Your task to perform on an android device: Open ESPN.com Image 0: 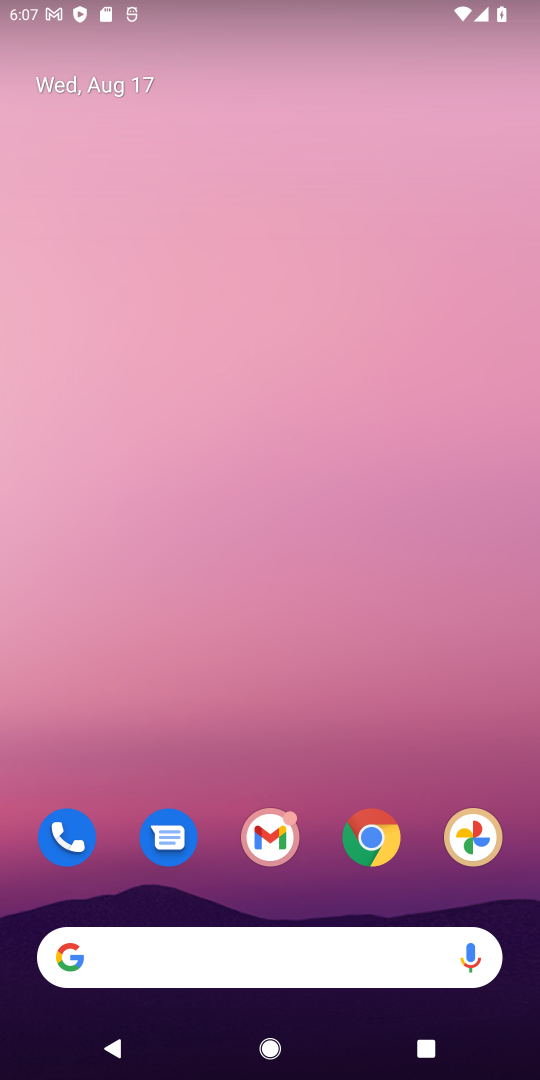
Step 0: click (379, 831)
Your task to perform on an android device: Open ESPN.com Image 1: 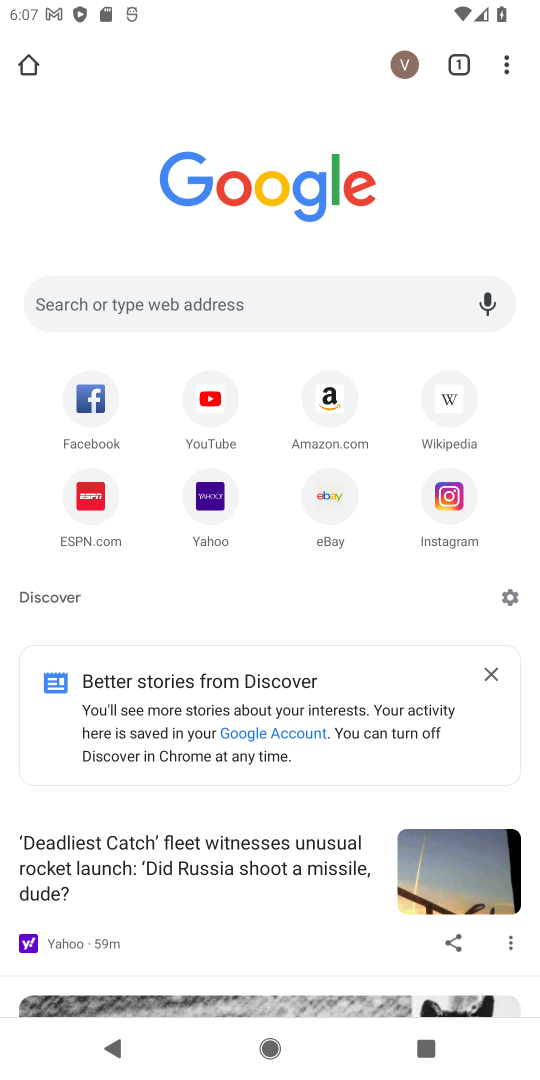
Step 1: click (73, 498)
Your task to perform on an android device: Open ESPN.com Image 2: 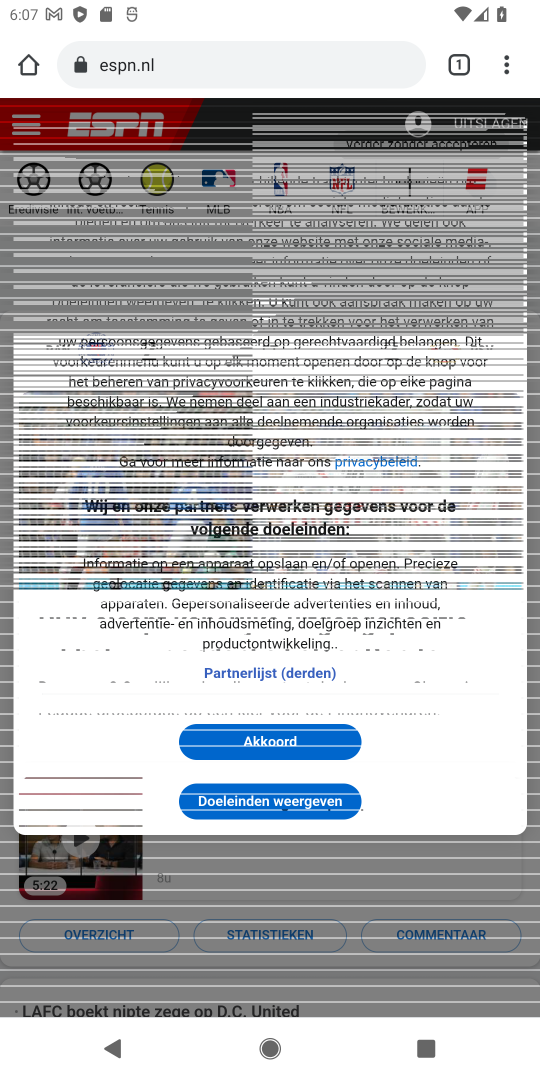
Step 2: task complete